Your task to perform on an android device: Show me recent news Image 0: 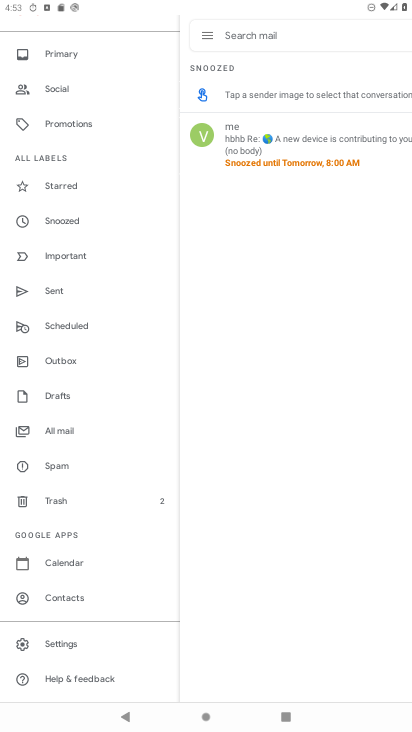
Step 0: press home button
Your task to perform on an android device: Show me recent news Image 1: 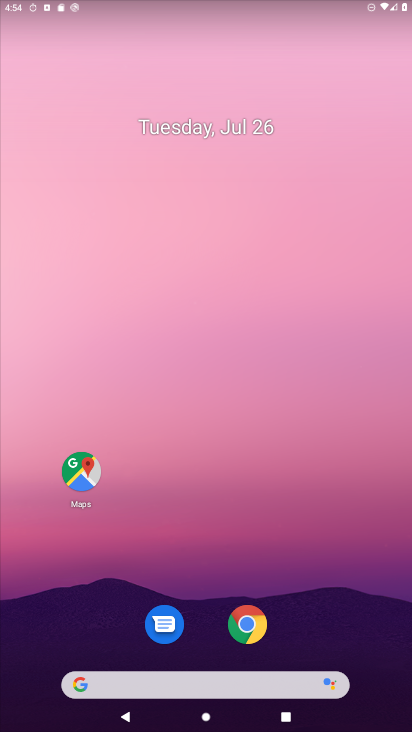
Step 1: drag from (315, 668) to (349, 4)
Your task to perform on an android device: Show me recent news Image 2: 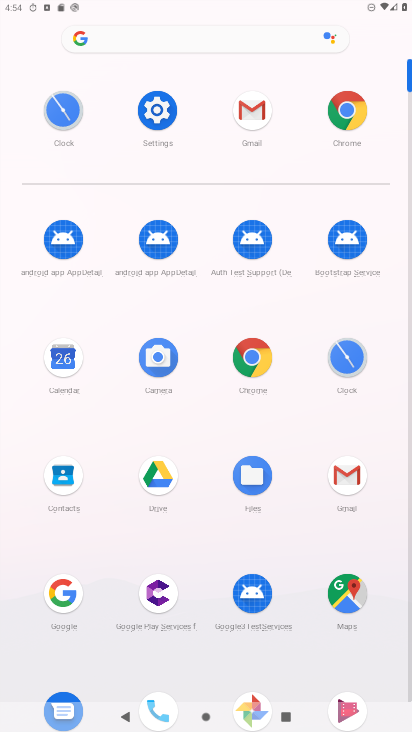
Step 2: click (251, 358)
Your task to perform on an android device: Show me recent news Image 3: 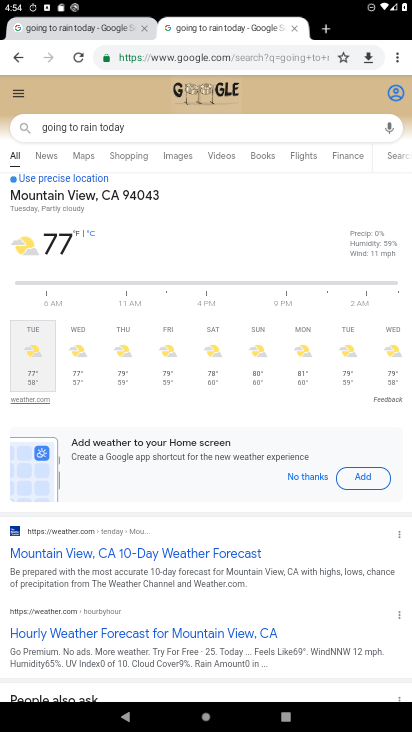
Step 3: click (242, 58)
Your task to perform on an android device: Show me recent news Image 4: 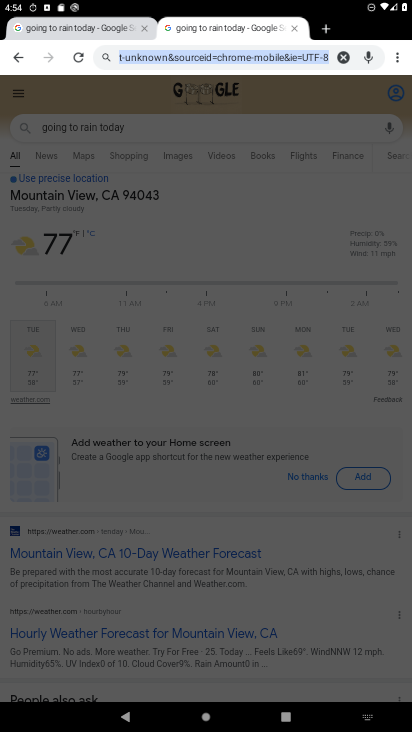
Step 4: type "recent news"
Your task to perform on an android device: Show me recent news Image 5: 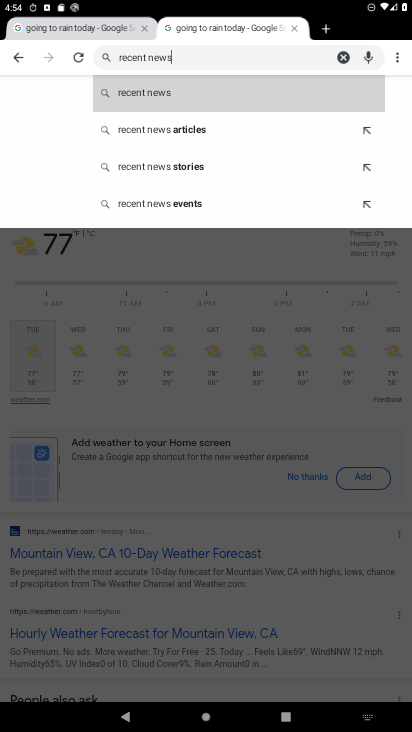
Step 5: click (117, 94)
Your task to perform on an android device: Show me recent news Image 6: 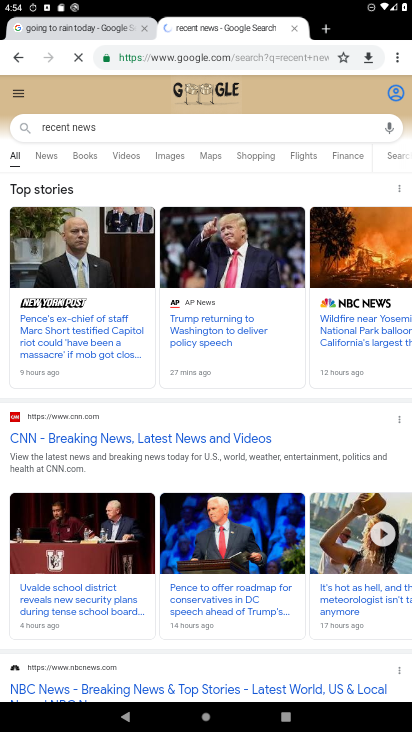
Step 6: task complete